Your task to perform on an android device: When is my next appointment? Image 0: 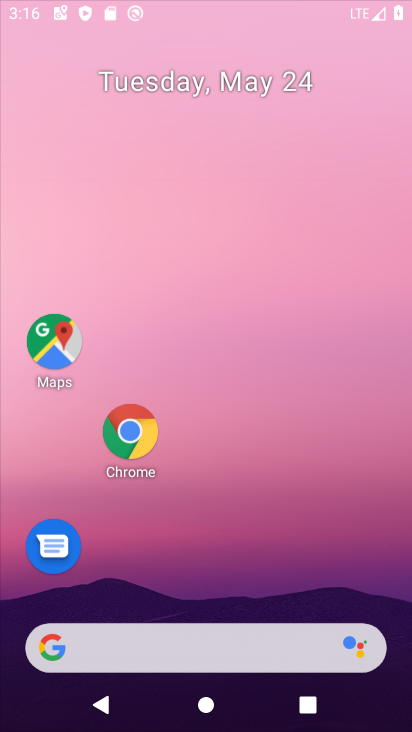
Step 0: click (234, 57)
Your task to perform on an android device: When is my next appointment? Image 1: 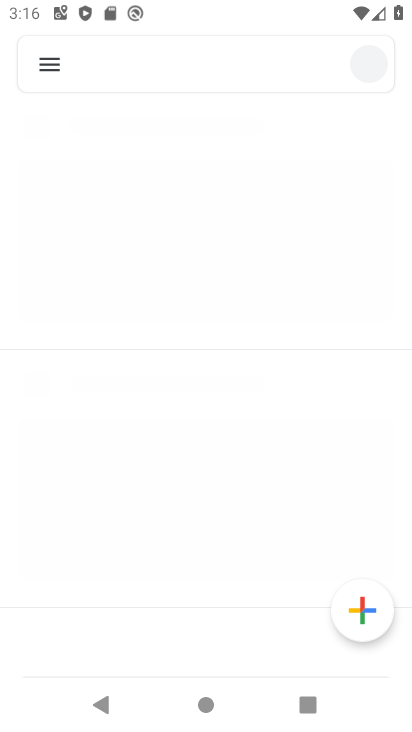
Step 1: drag from (221, 556) to (405, 672)
Your task to perform on an android device: When is my next appointment? Image 2: 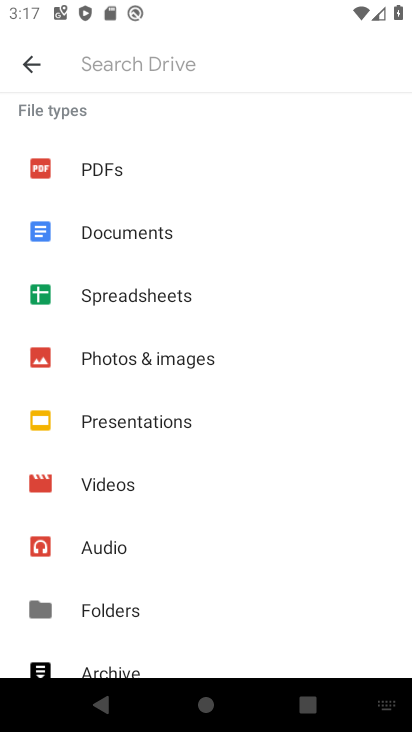
Step 2: drag from (218, 549) to (262, 240)
Your task to perform on an android device: When is my next appointment? Image 3: 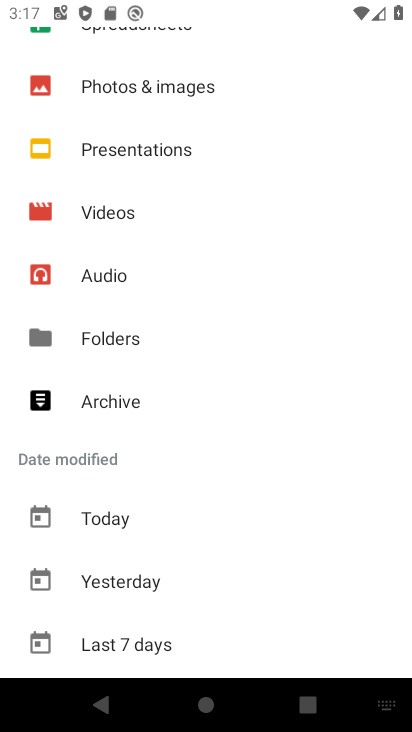
Step 3: drag from (216, 629) to (274, 164)
Your task to perform on an android device: When is my next appointment? Image 4: 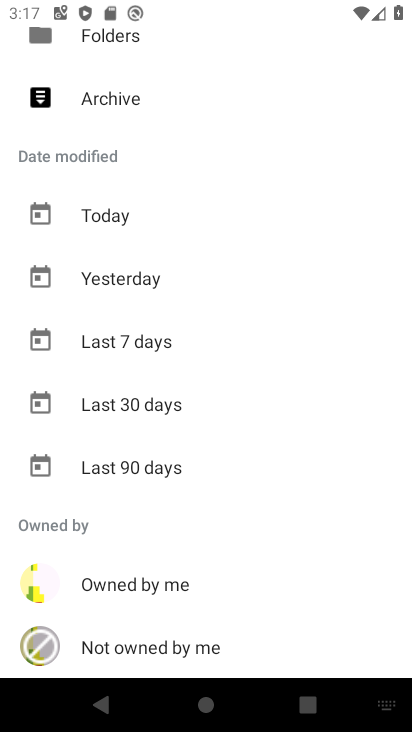
Step 4: drag from (162, 155) to (408, 230)
Your task to perform on an android device: When is my next appointment? Image 5: 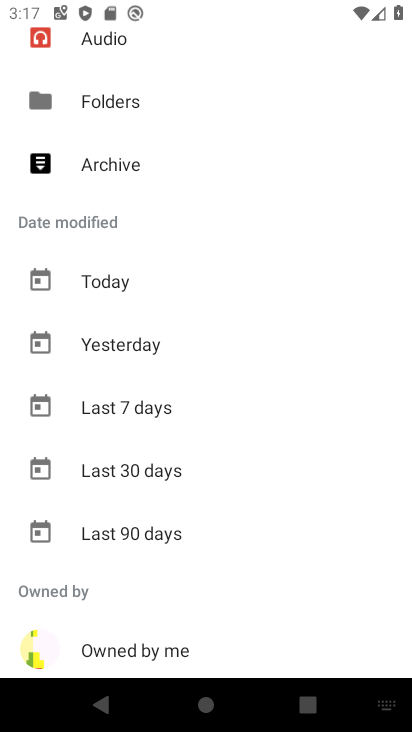
Step 5: press home button
Your task to perform on an android device: When is my next appointment? Image 6: 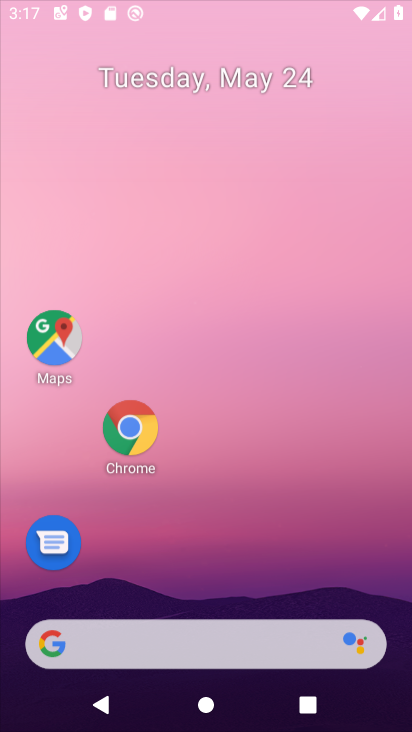
Step 6: drag from (253, 585) to (292, 3)
Your task to perform on an android device: When is my next appointment? Image 7: 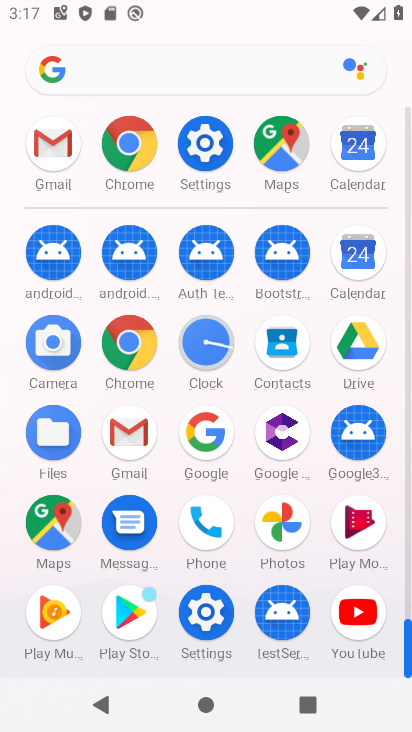
Step 7: click (353, 251)
Your task to perform on an android device: When is my next appointment? Image 8: 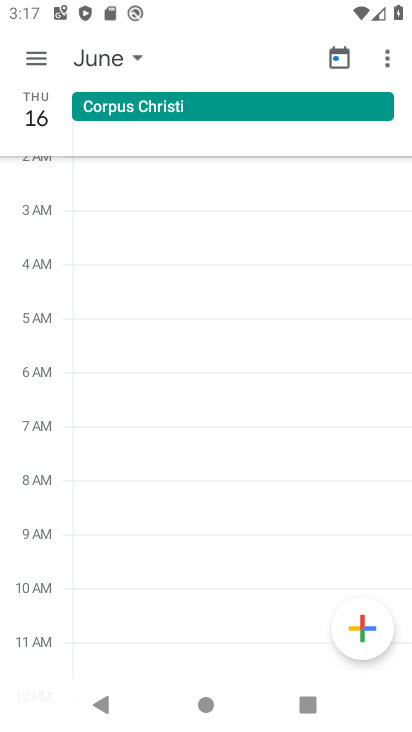
Step 8: click (96, 52)
Your task to perform on an android device: When is my next appointment? Image 9: 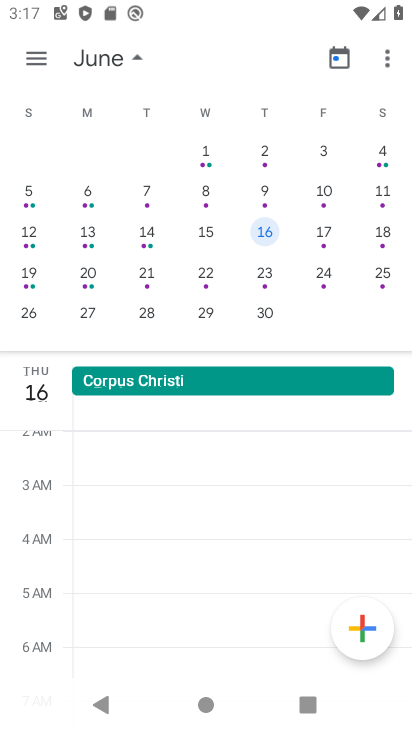
Step 9: drag from (56, 260) to (397, 217)
Your task to perform on an android device: When is my next appointment? Image 10: 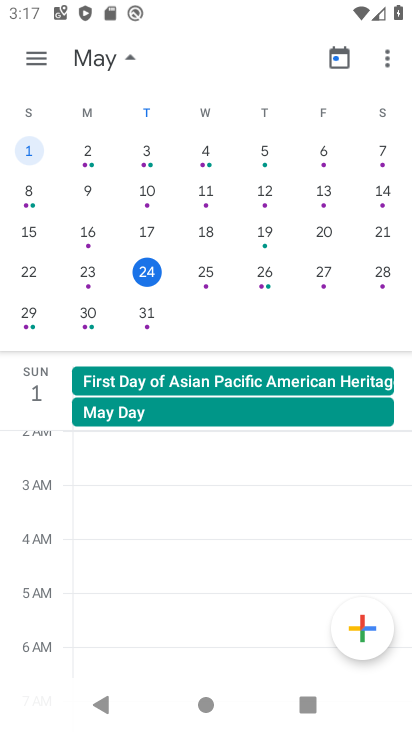
Step 10: drag from (148, 443) to (271, 215)
Your task to perform on an android device: When is my next appointment? Image 11: 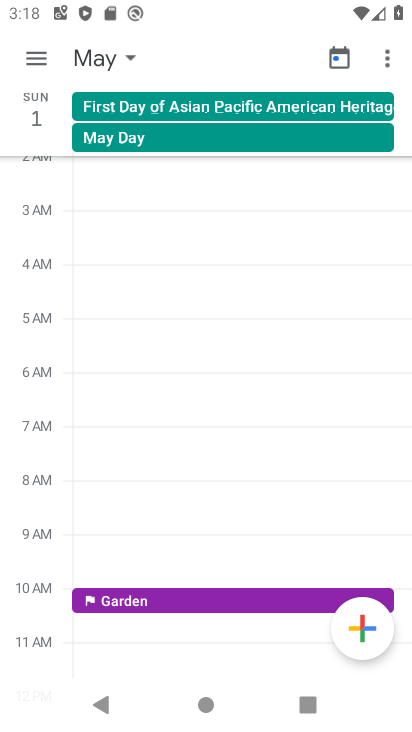
Step 11: drag from (167, 228) to (304, 559)
Your task to perform on an android device: When is my next appointment? Image 12: 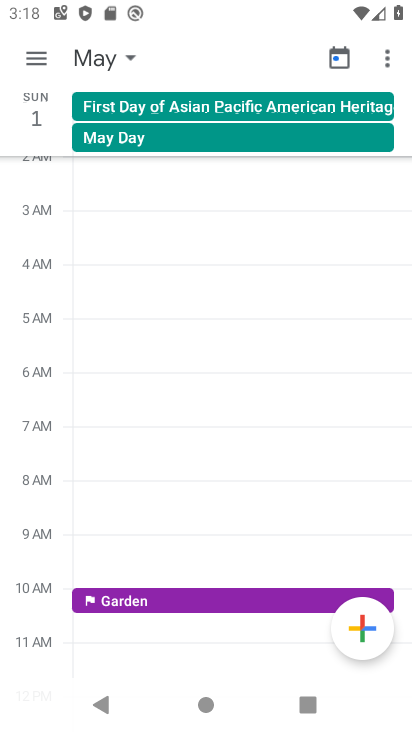
Step 12: drag from (181, 232) to (201, 662)
Your task to perform on an android device: When is my next appointment? Image 13: 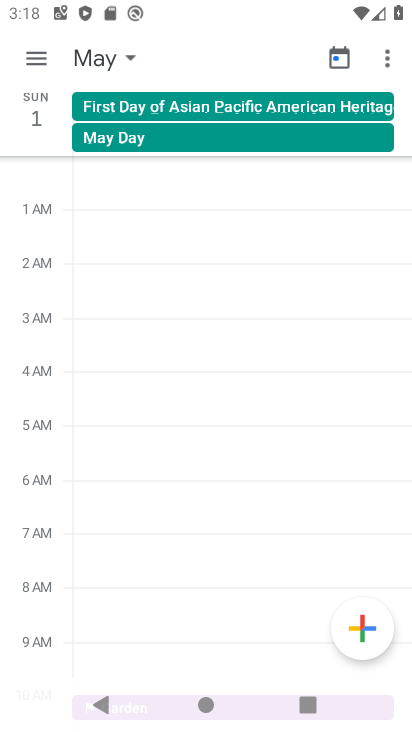
Step 13: click (207, 140)
Your task to perform on an android device: When is my next appointment? Image 14: 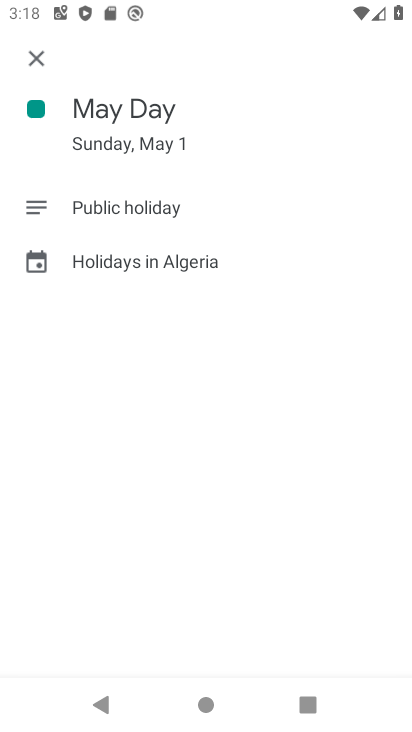
Step 14: click (110, 59)
Your task to perform on an android device: When is my next appointment? Image 15: 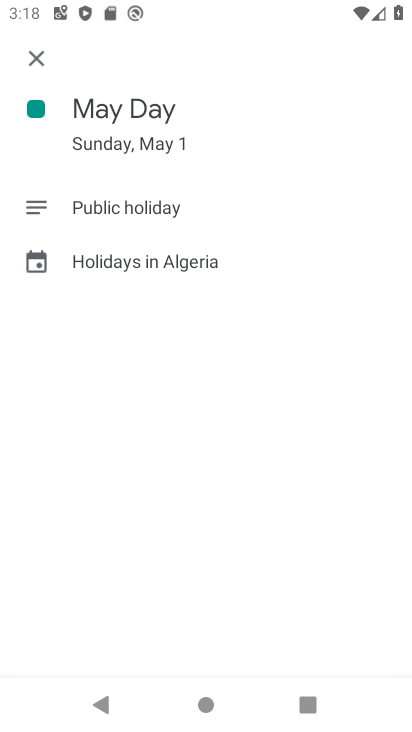
Step 15: click (33, 52)
Your task to perform on an android device: When is my next appointment? Image 16: 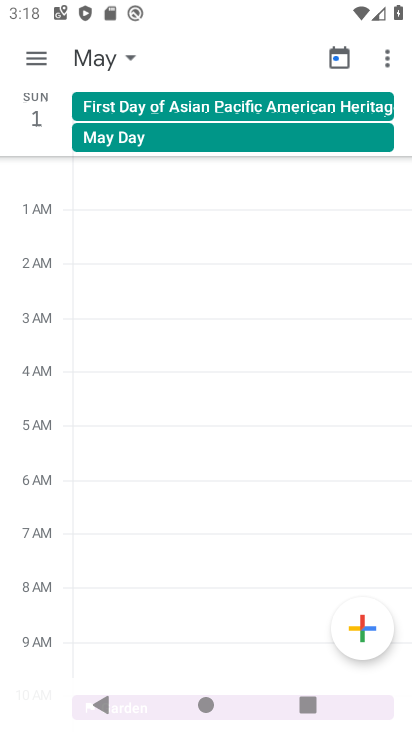
Step 16: click (109, 51)
Your task to perform on an android device: When is my next appointment? Image 17: 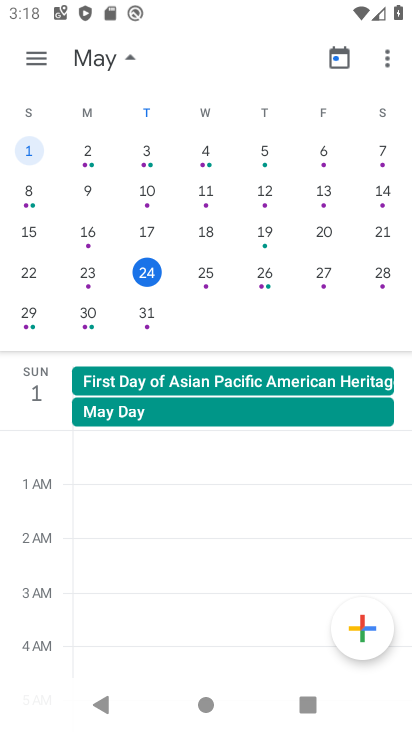
Step 17: click (146, 270)
Your task to perform on an android device: When is my next appointment? Image 18: 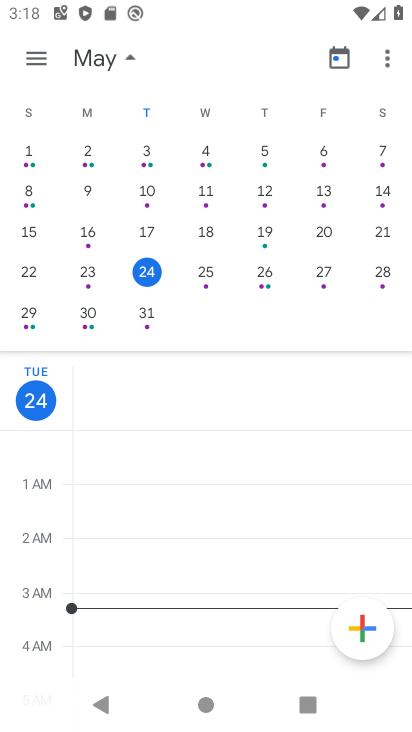
Step 18: task complete